Your task to perform on an android device: Open the stopwatch Image 0: 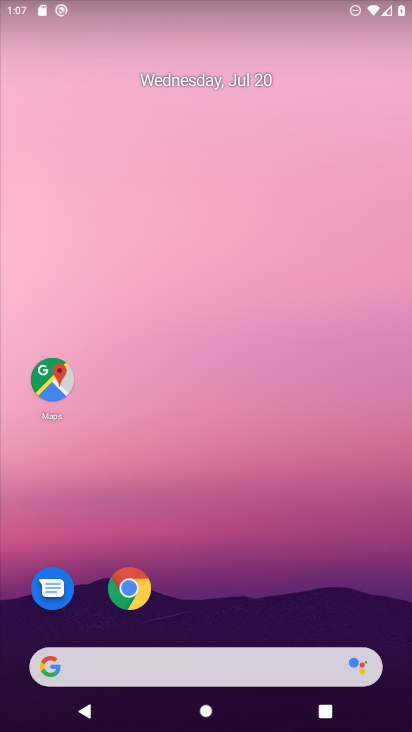
Step 0: drag from (273, 625) to (241, 99)
Your task to perform on an android device: Open the stopwatch Image 1: 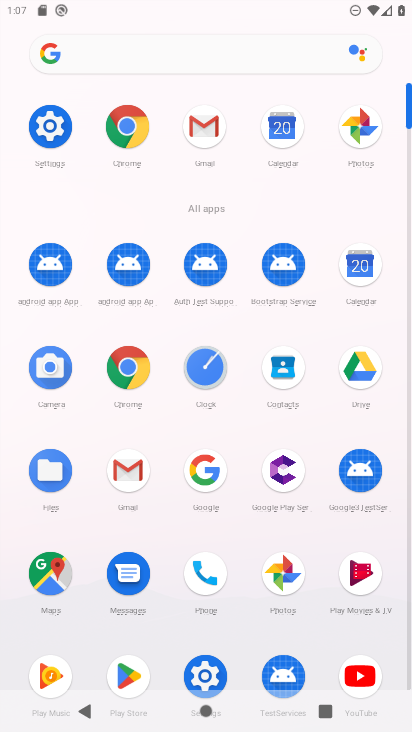
Step 1: click (210, 370)
Your task to perform on an android device: Open the stopwatch Image 2: 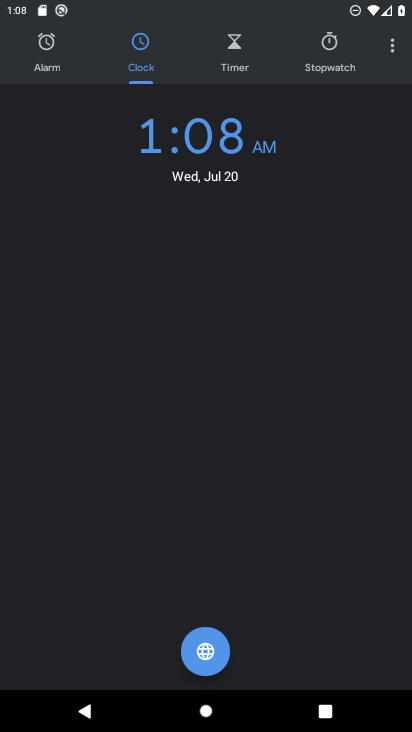
Step 2: click (329, 65)
Your task to perform on an android device: Open the stopwatch Image 3: 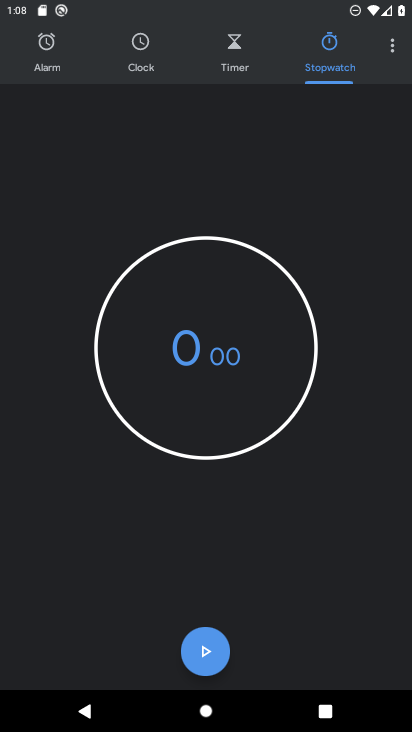
Step 3: task complete